Your task to perform on an android device: allow cookies in the chrome app Image 0: 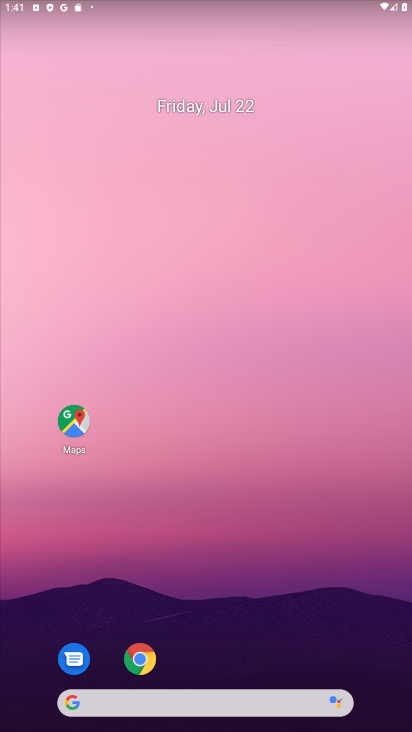
Step 0: click (137, 659)
Your task to perform on an android device: allow cookies in the chrome app Image 1: 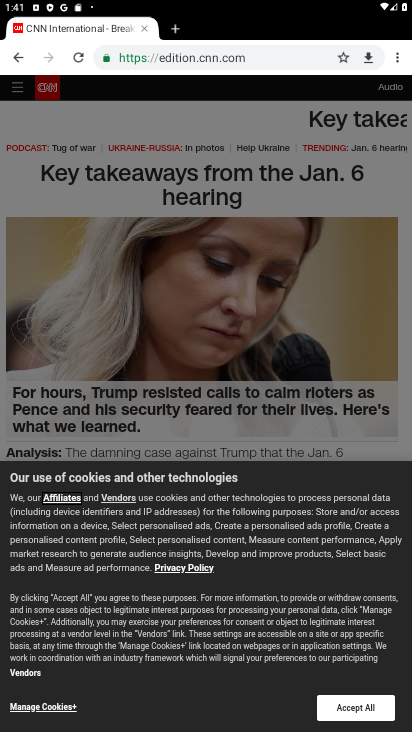
Step 1: click (399, 56)
Your task to perform on an android device: allow cookies in the chrome app Image 2: 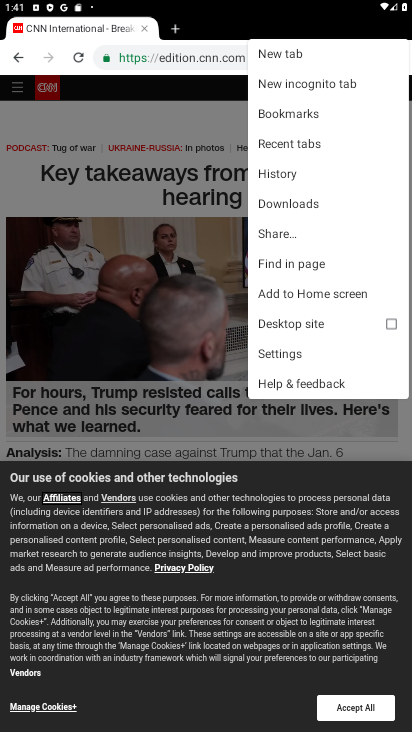
Step 2: click (275, 352)
Your task to perform on an android device: allow cookies in the chrome app Image 3: 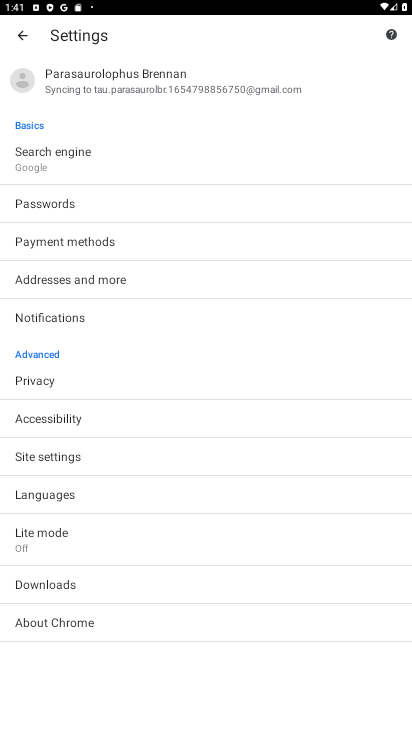
Step 3: click (58, 459)
Your task to perform on an android device: allow cookies in the chrome app Image 4: 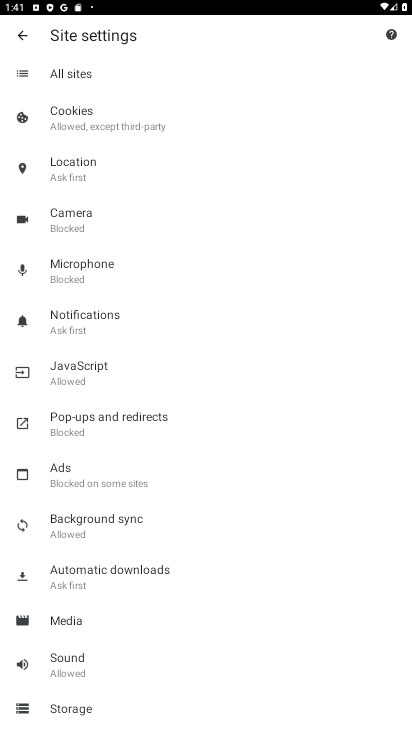
Step 4: click (91, 123)
Your task to perform on an android device: allow cookies in the chrome app Image 5: 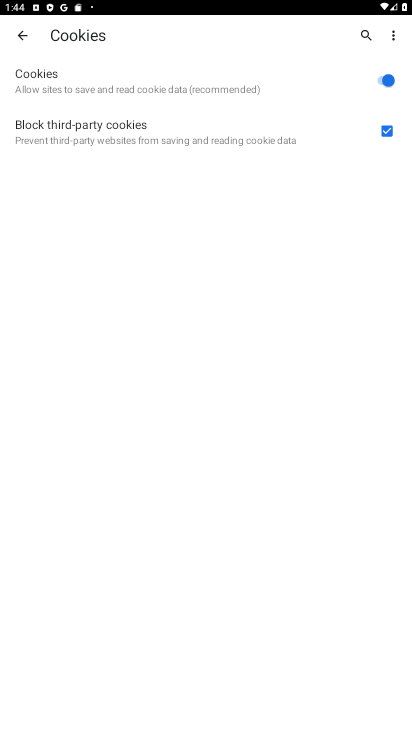
Step 5: task complete